Your task to perform on an android device: change the clock style Image 0: 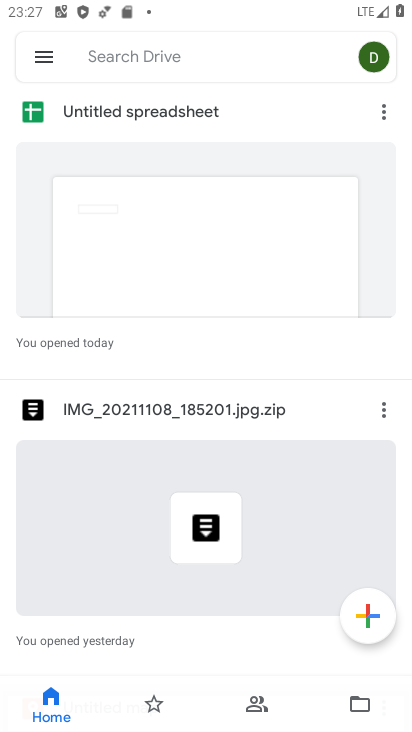
Step 0: press home button
Your task to perform on an android device: change the clock style Image 1: 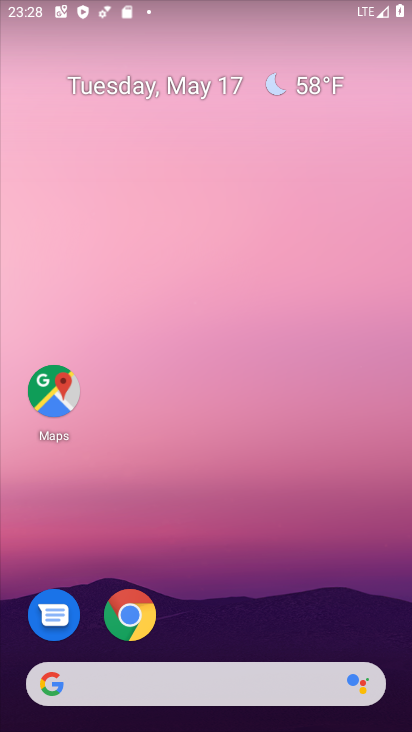
Step 1: drag from (200, 600) to (233, 200)
Your task to perform on an android device: change the clock style Image 2: 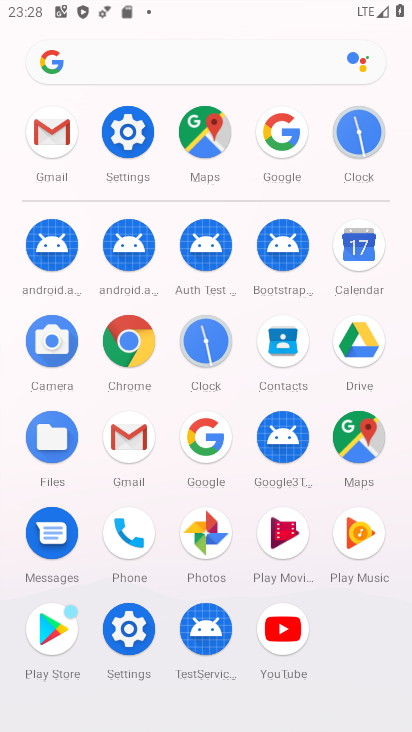
Step 2: click (355, 109)
Your task to perform on an android device: change the clock style Image 3: 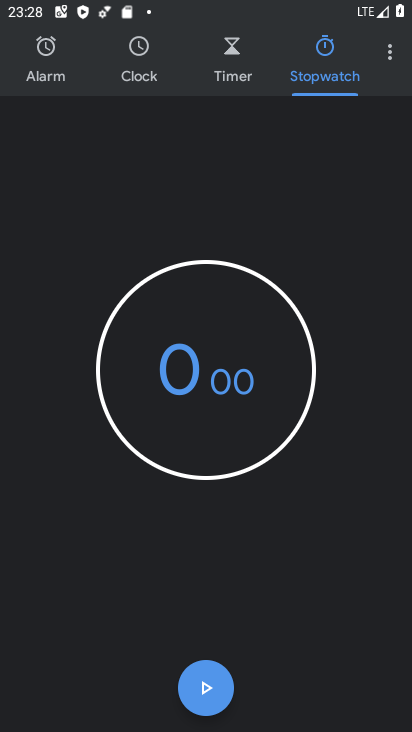
Step 3: click (384, 60)
Your task to perform on an android device: change the clock style Image 4: 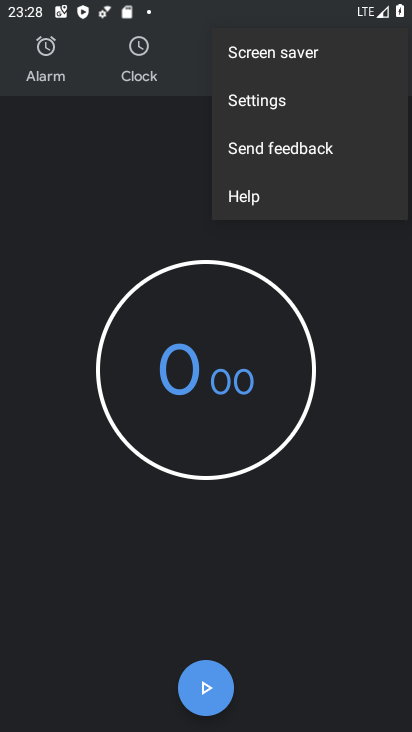
Step 4: click (247, 106)
Your task to perform on an android device: change the clock style Image 5: 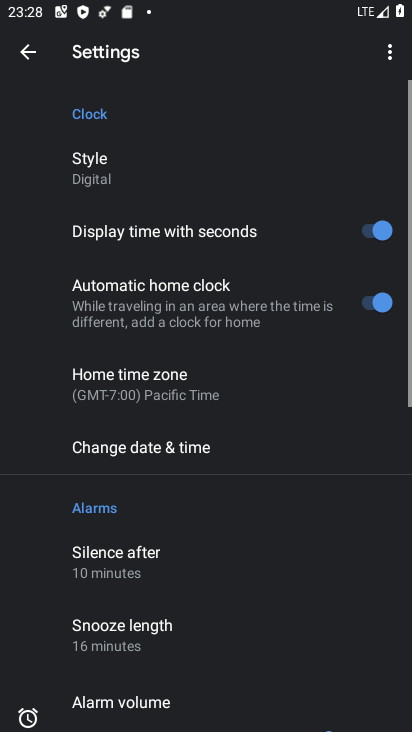
Step 5: click (65, 160)
Your task to perform on an android device: change the clock style Image 6: 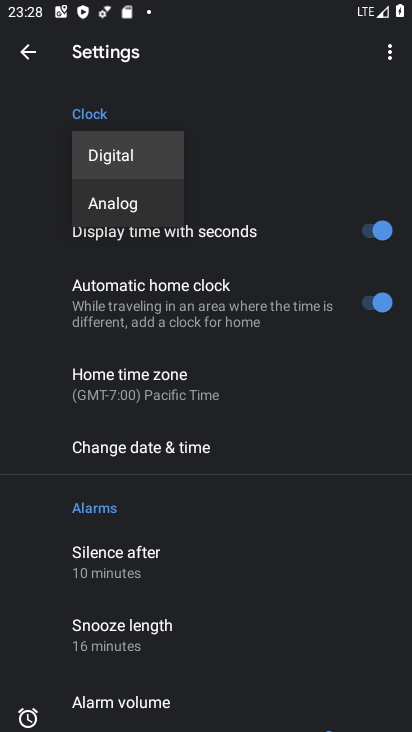
Step 6: click (129, 199)
Your task to perform on an android device: change the clock style Image 7: 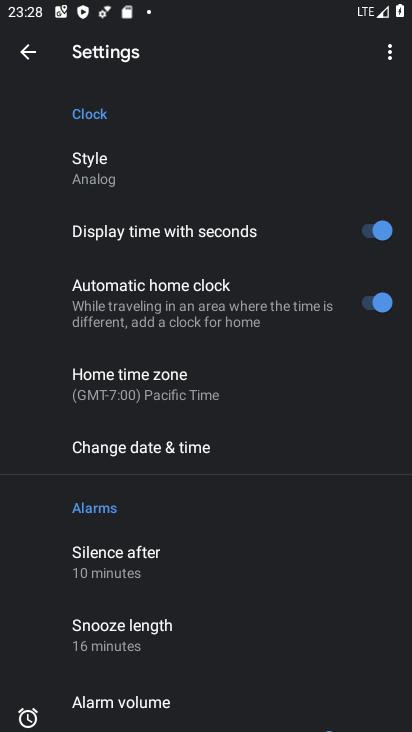
Step 7: task complete